Your task to perform on an android device: Open Amazon Image 0: 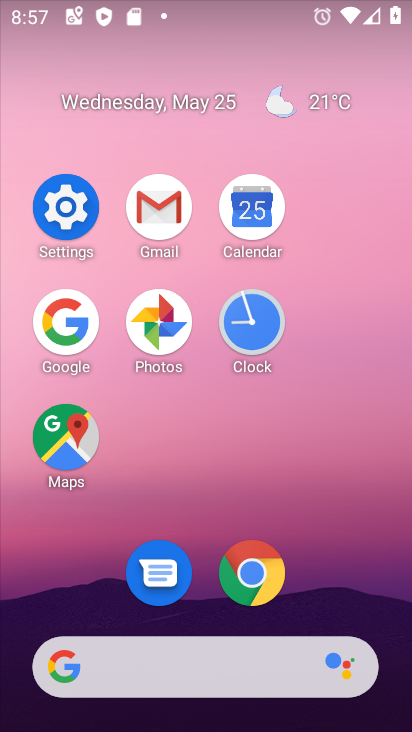
Step 0: click (258, 587)
Your task to perform on an android device: Open Amazon Image 1: 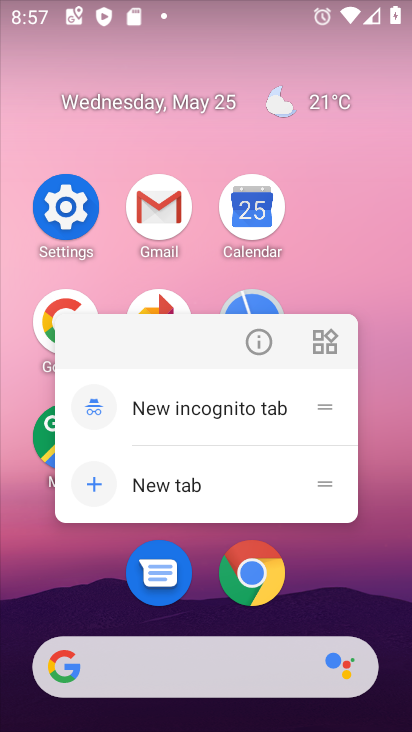
Step 1: click (247, 556)
Your task to perform on an android device: Open Amazon Image 2: 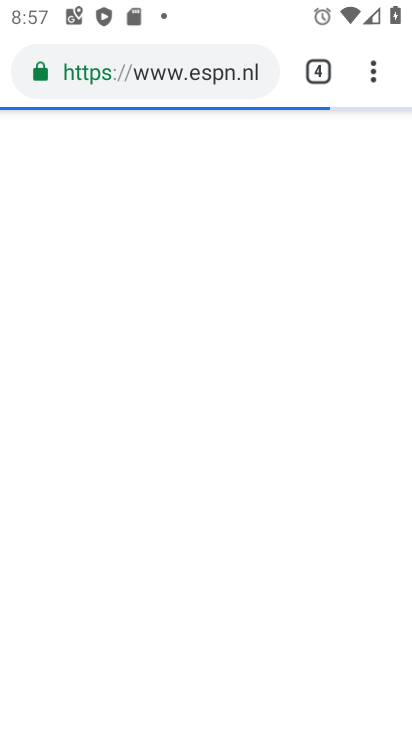
Step 2: click (318, 80)
Your task to perform on an android device: Open Amazon Image 3: 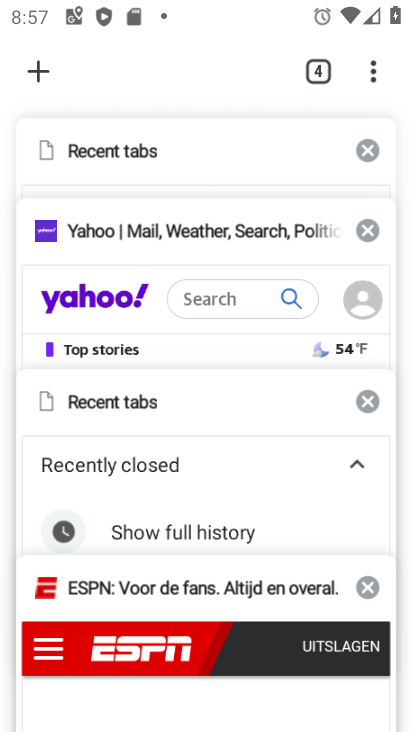
Step 3: click (69, 76)
Your task to perform on an android device: Open Amazon Image 4: 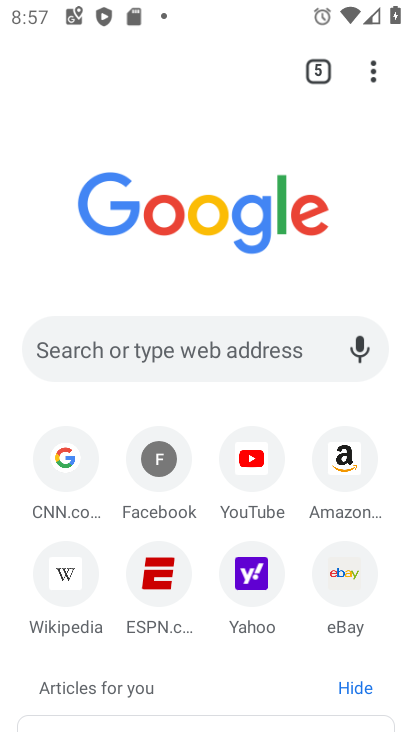
Step 4: click (347, 464)
Your task to perform on an android device: Open Amazon Image 5: 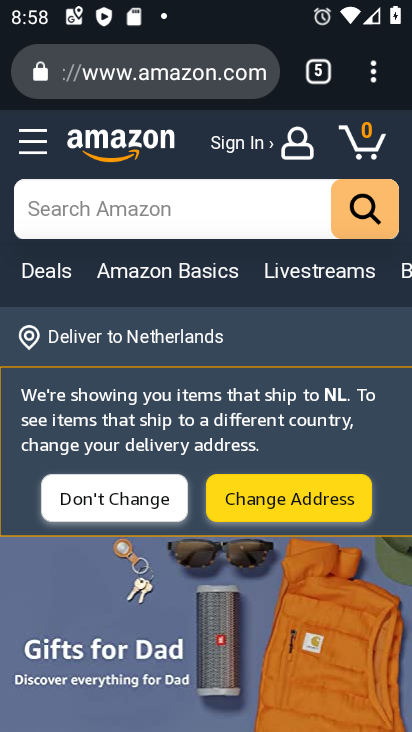
Step 5: task complete